Your task to perform on an android device: turn off data saver in the chrome app Image 0: 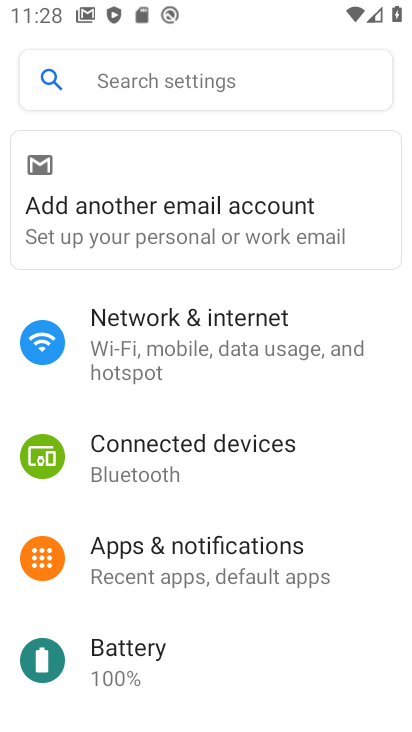
Step 0: press home button
Your task to perform on an android device: turn off data saver in the chrome app Image 1: 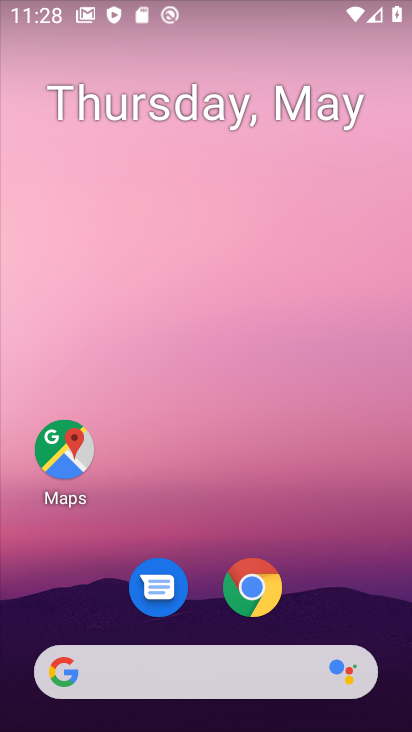
Step 1: click (246, 575)
Your task to perform on an android device: turn off data saver in the chrome app Image 2: 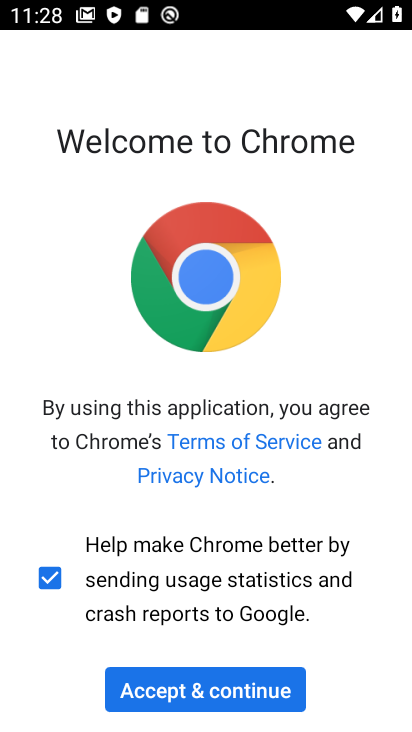
Step 2: click (203, 700)
Your task to perform on an android device: turn off data saver in the chrome app Image 3: 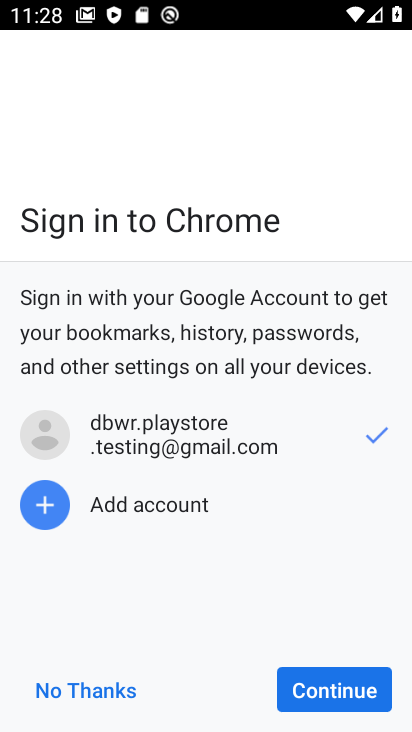
Step 3: click (314, 685)
Your task to perform on an android device: turn off data saver in the chrome app Image 4: 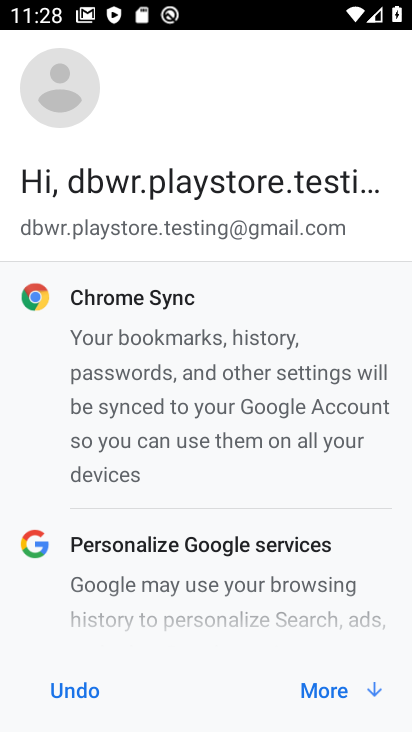
Step 4: click (317, 699)
Your task to perform on an android device: turn off data saver in the chrome app Image 5: 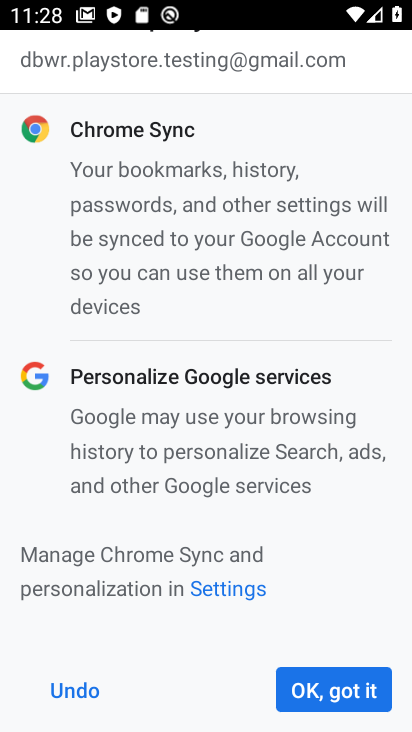
Step 5: click (317, 699)
Your task to perform on an android device: turn off data saver in the chrome app Image 6: 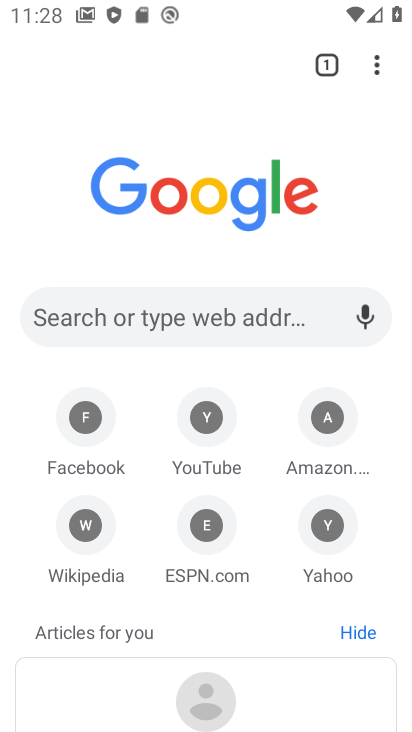
Step 6: drag from (370, 62) to (178, 555)
Your task to perform on an android device: turn off data saver in the chrome app Image 7: 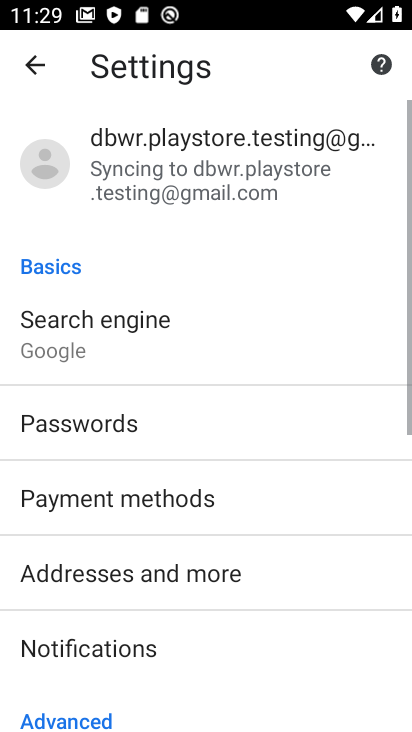
Step 7: drag from (153, 645) to (290, 110)
Your task to perform on an android device: turn off data saver in the chrome app Image 8: 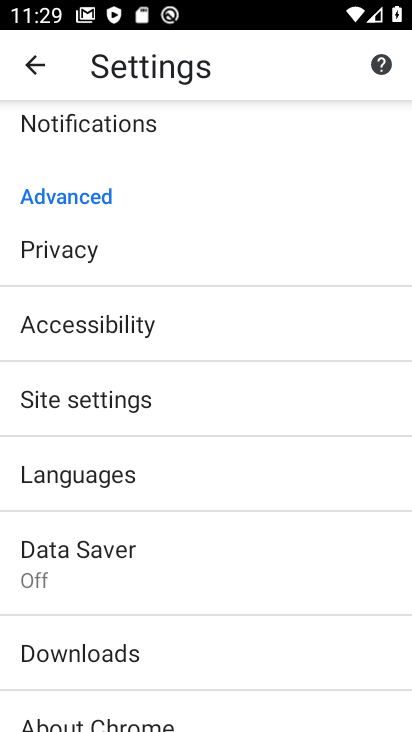
Step 8: click (117, 550)
Your task to perform on an android device: turn off data saver in the chrome app Image 9: 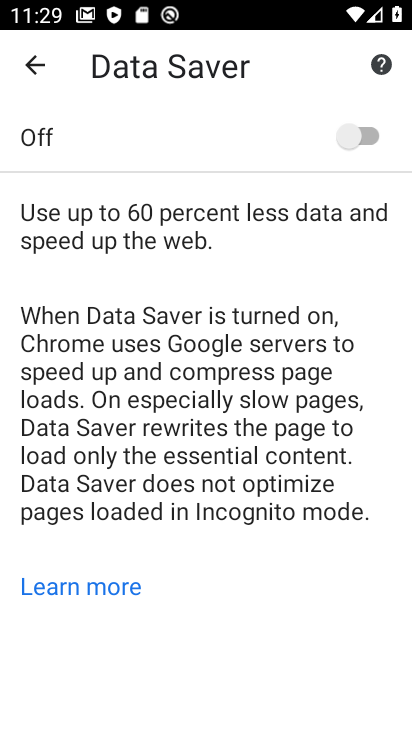
Step 9: task complete